Your task to perform on an android device: toggle notification dots Image 0: 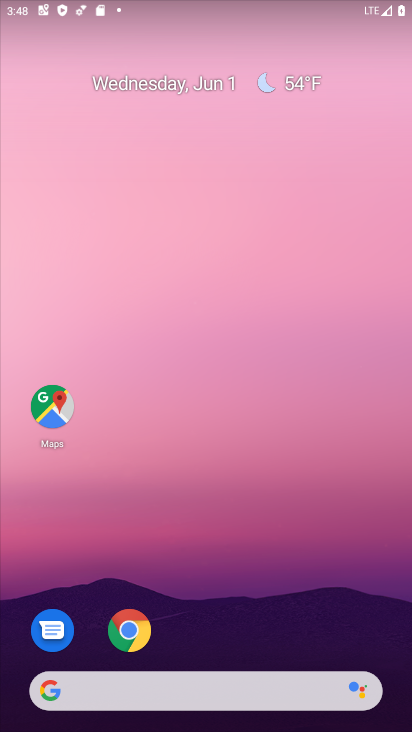
Step 0: drag from (252, 529) to (230, 13)
Your task to perform on an android device: toggle notification dots Image 1: 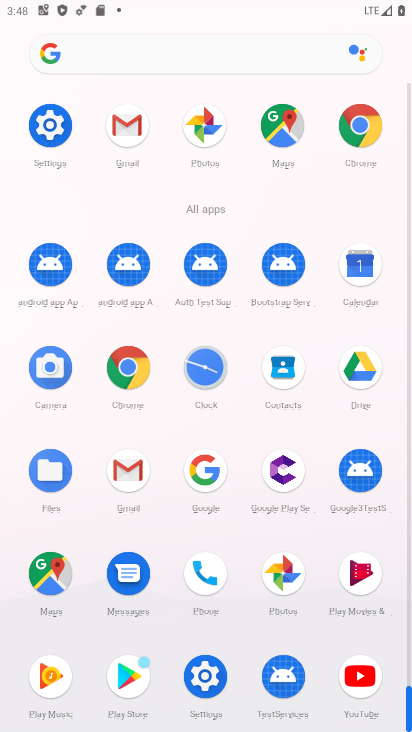
Step 1: click (208, 674)
Your task to perform on an android device: toggle notification dots Image 2: 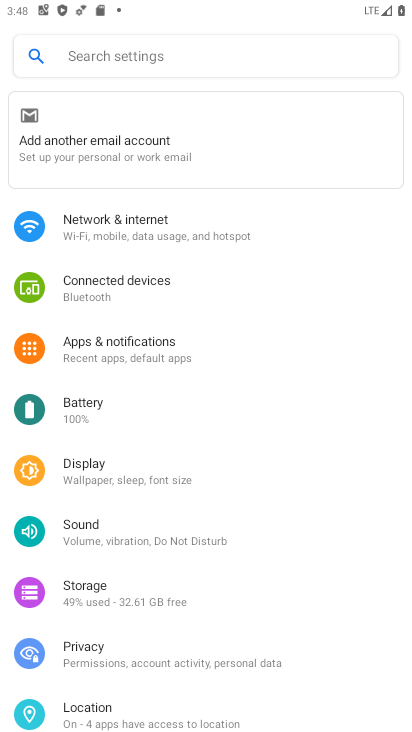
Step 2: click (165, 336)
Your task to perform on an android device: toggle notification dots Image 3: 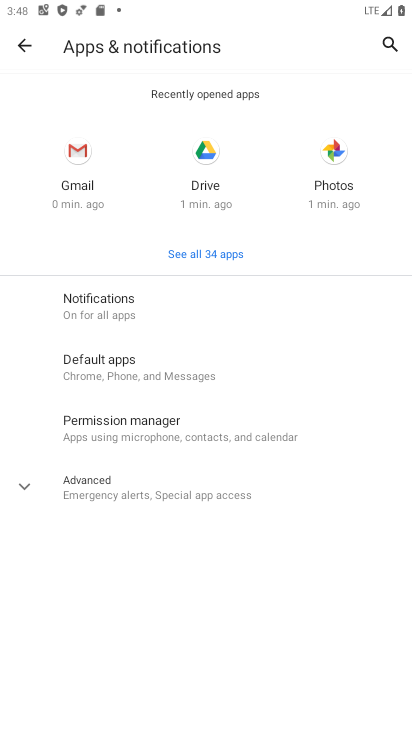
Step 3: click (45, 489)
Your task to perform on an android device: toggle notification dots Image 4: 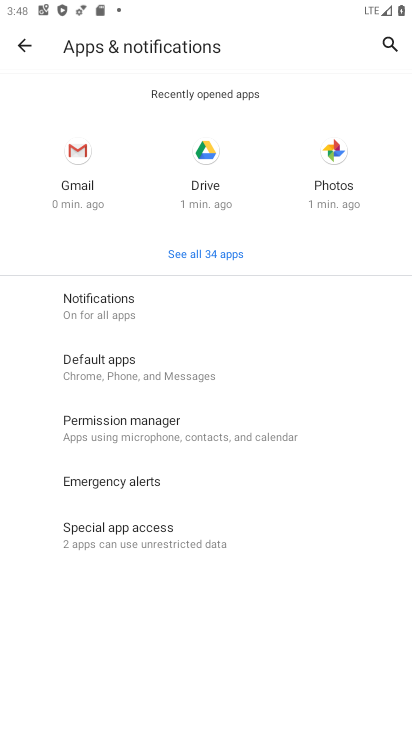
Step 4: drag from (208, 627) to (239, 239)
Your task to perform on an android device: toggle notification dots Image 5: 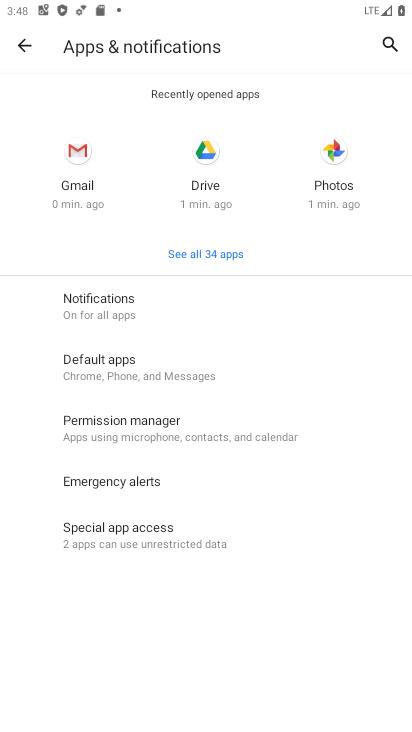
Step 5: click (155, 287)
Your task to perform on an android device: toggle notification dots Image 6: 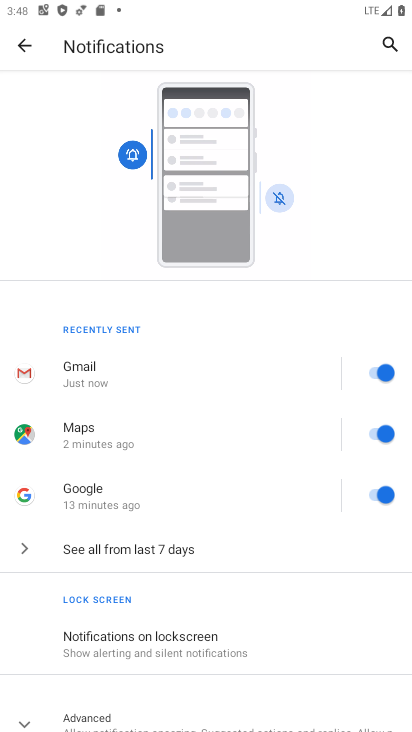
Step 6: drag from (220, 606) to (209, 167)
Your task to perform on an android device: toggle notification dots Image 7: 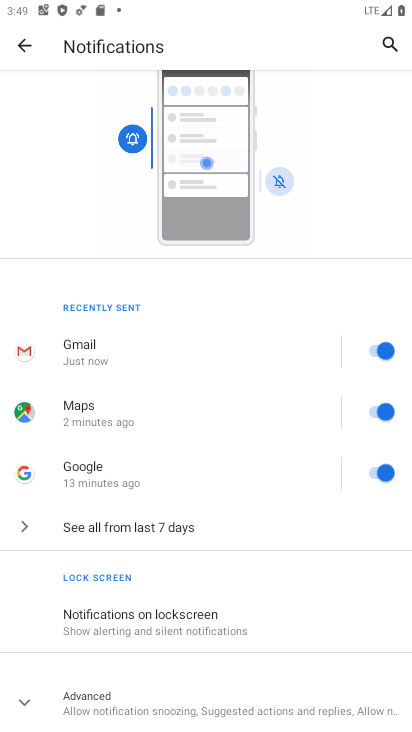
Step 7: click (80, 696)
Your task to perform on an android device: toggle notification dots Image 8: 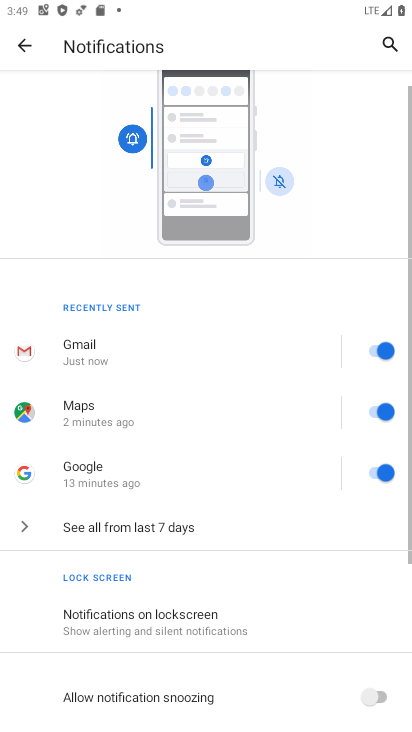
Step 8: drag from (238, 641) to (234, 225)
Your task to perform on an android device: toggle notification dots Image 9: 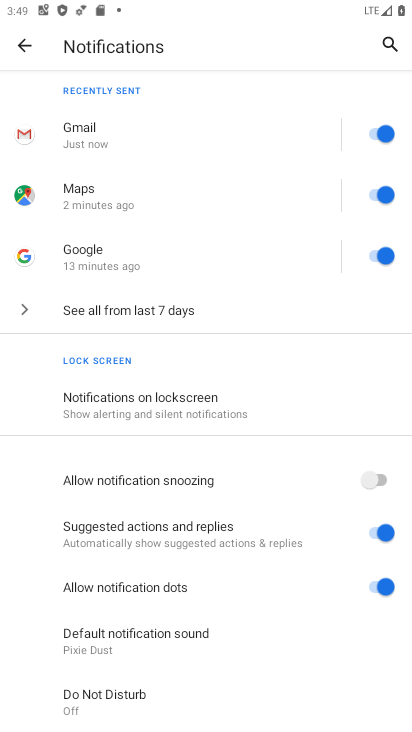
Step 9: click (369, 583)
Your task to perform on an android device: toggle notification dots Image 10: 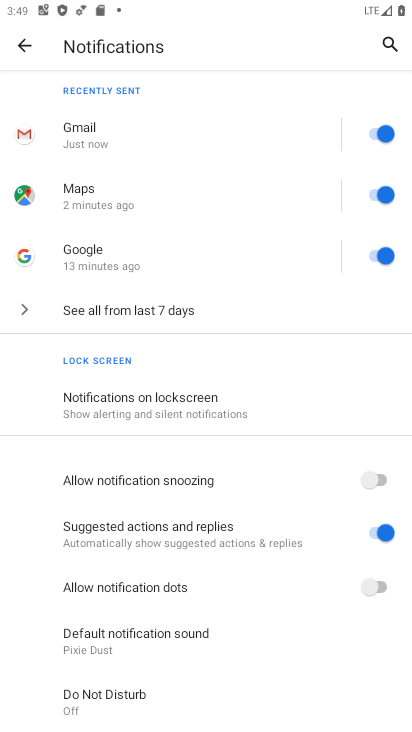
Step 10: task complete